Your task to perform on an android device: turn on wifi Image 0: 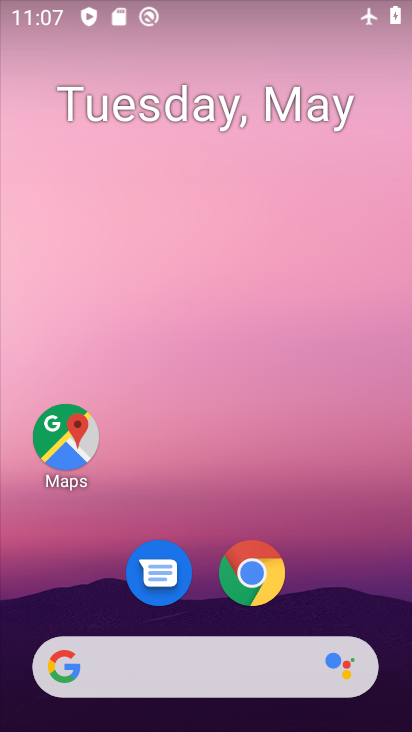
Step 0: drag from (213, 627) to (263, 243)
Your task to perform on an android device: turn on wifi Image 1: 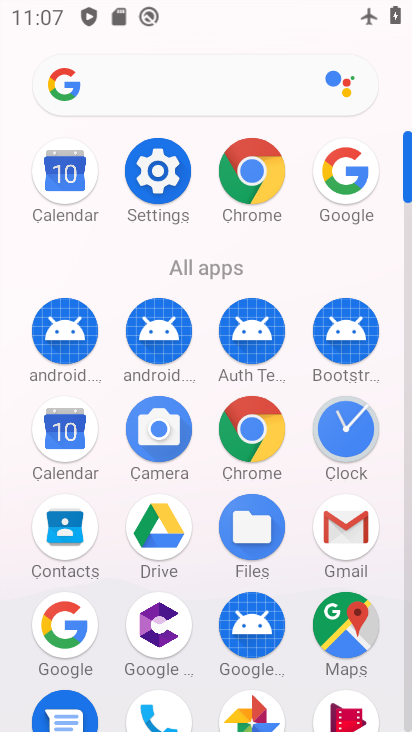
Step 1: click (160, 154)
Your task to perform on an android device: turn on wifi Image 2: 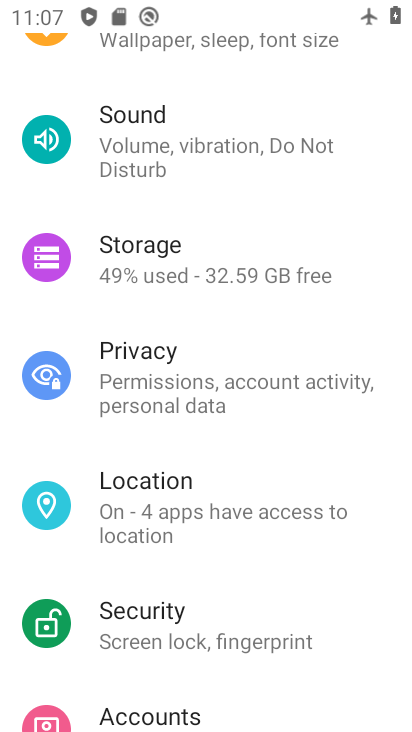
Step 2: drag from (213, 81) to (191, 567)
Your task to perform on an android device: turn on wifi Image 3: 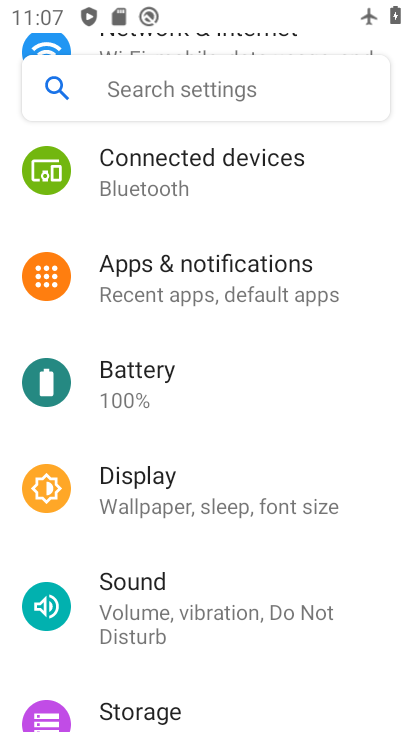
Step 3: drag from (259, 152) to (276, 529)
Your task to perform on an android device: turn on wifi Image 4: 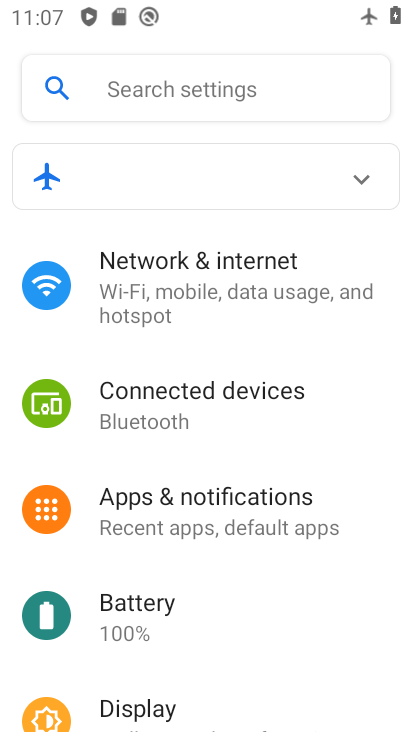
Step 4: click (199, 294)
Your task to perform on an android device: turn on wifi Image 5: 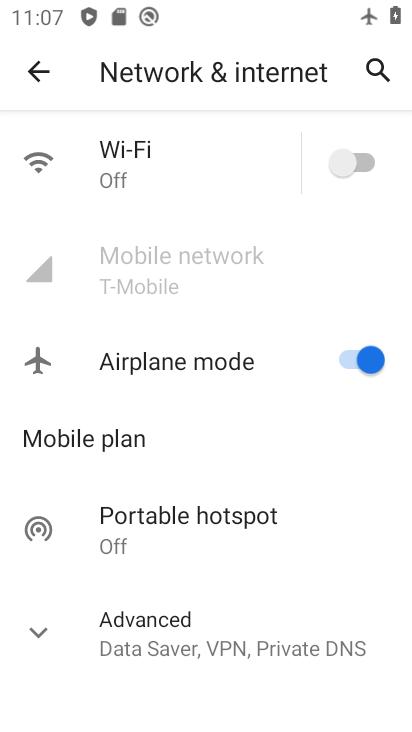
Step 5: click (364, 157)
Your task to perform on an android device: turn on wifi Image 6: 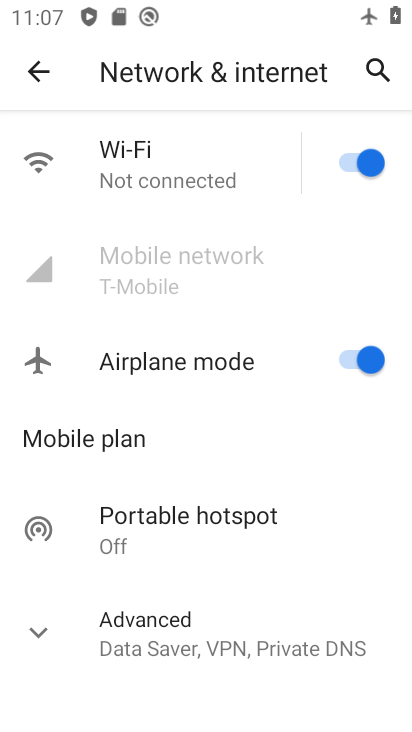
Step 6: task complete